Your task to perform on an android device: open sync settings in chrome Image 0: 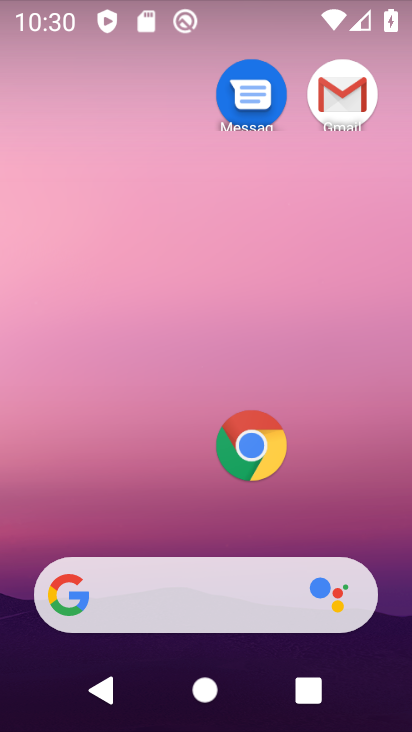
Step 0: click (245, 445)
Your task to perform on an android device: open sync settings in chrome Image 1: 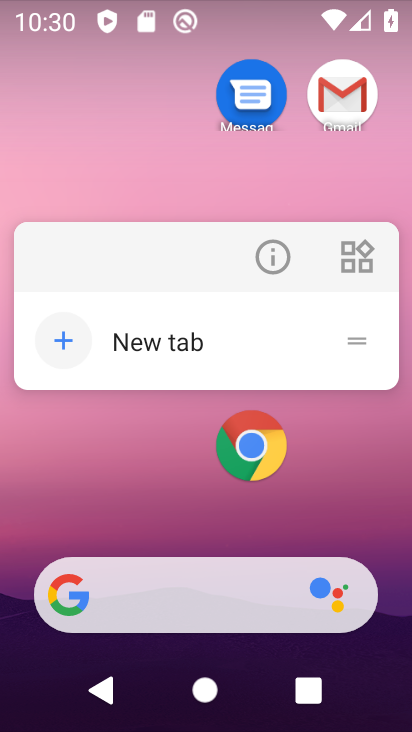
Step 1: click (255, 465)
Your task to perform on an android device: open sync settings in chrome Image 2: 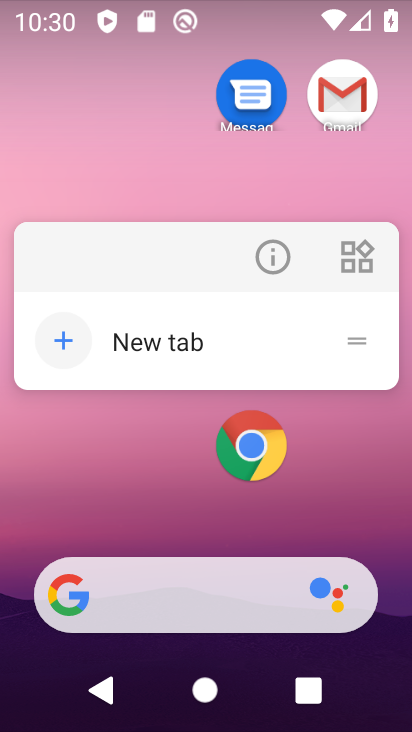
Step 2: click (263, 420)
Your task to perform on an android device: open sync settings in chrome Image 3: 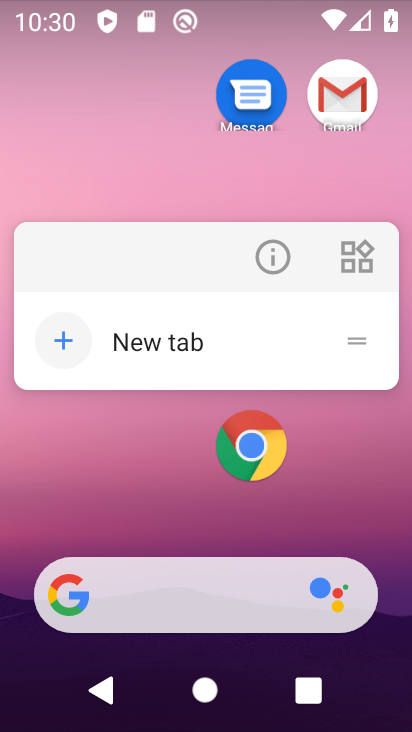
Step 3: click (260, 450)
Your task to perform on an android device: open sync settings in chrome Image 4: 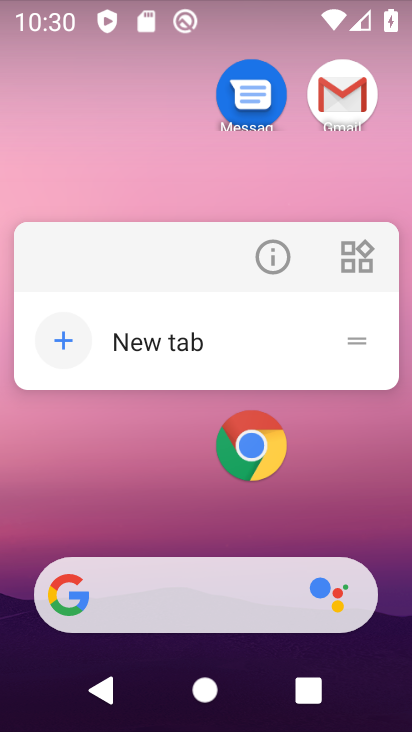
Step 4: click (242, 453)
Your task to perform on an android device: open sync settings in chrome Image 5: 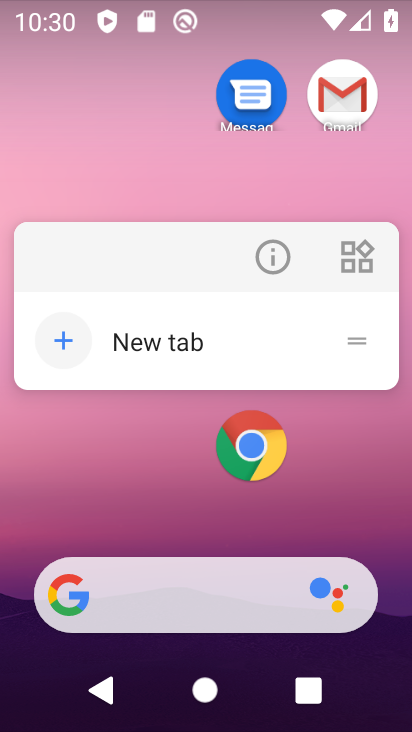
Step 5: click (242, 454)
Your task to perform on an android device: open sync settings in chrome Image 6: 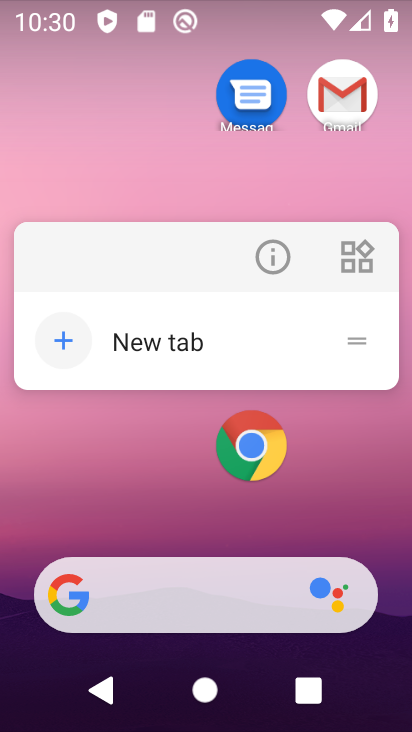
Step 6: click (260, 462)
Your task to perform on an android device: open sync settings in chrome Image 7: 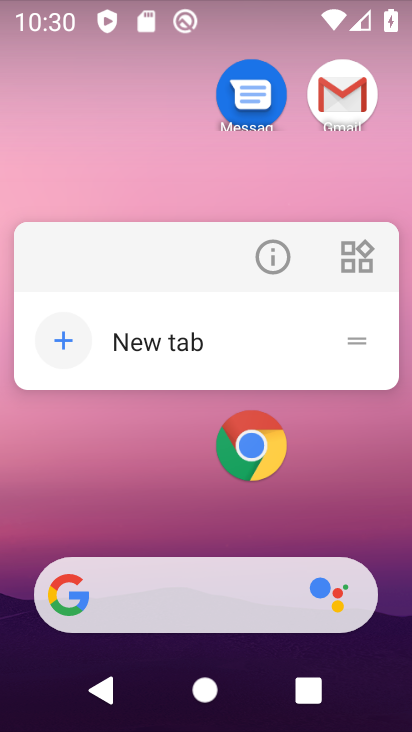
Step 7: click (290, 460)
Your task to perform on an android device: open sync settings in chrome Image 8: 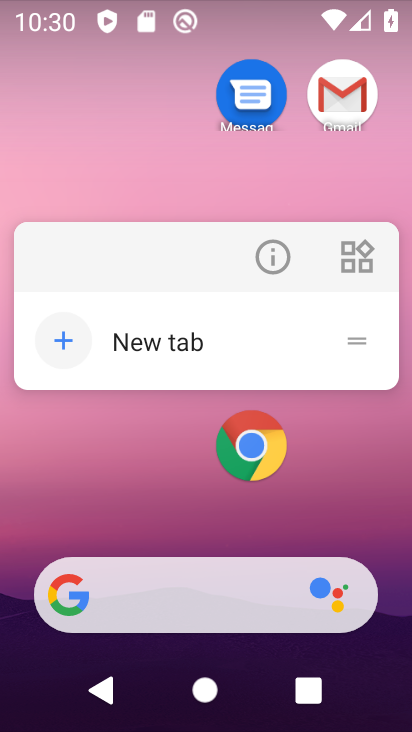
Step 8: click (269, 456)
Your task to perform on an android device: open sync settings in chrome Image 9: 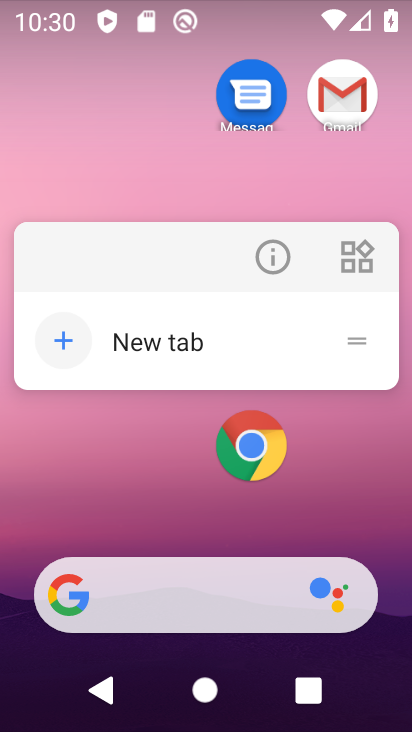
Step 9: click (247, 471)
Your task to perform on an android device: open sync settings in chrome Image 10: 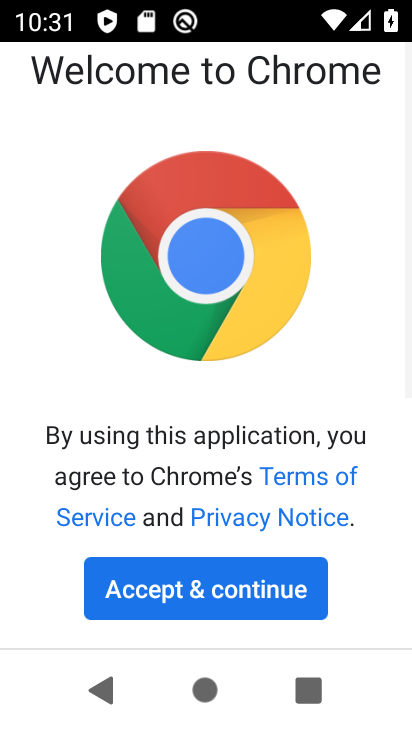
Step 10: click (227, 615)
Your task to perform on an android device: open sync settings in chrome Image 11: 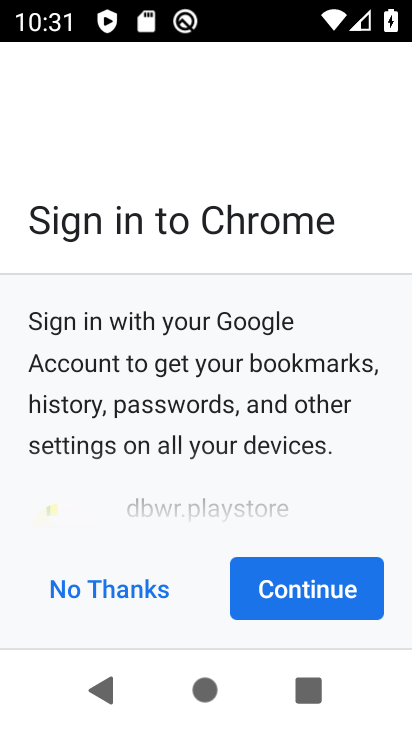
Step 11: click (351, 592)
Your task to perform on an android device: open sync settings in chrome Image 12: 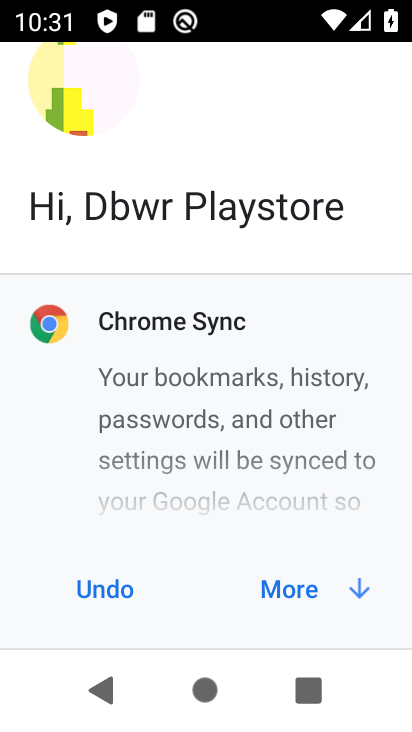
Step 12: click (310, 593)
Your task to perform on an android device: open sync settings in chrome Image 13: 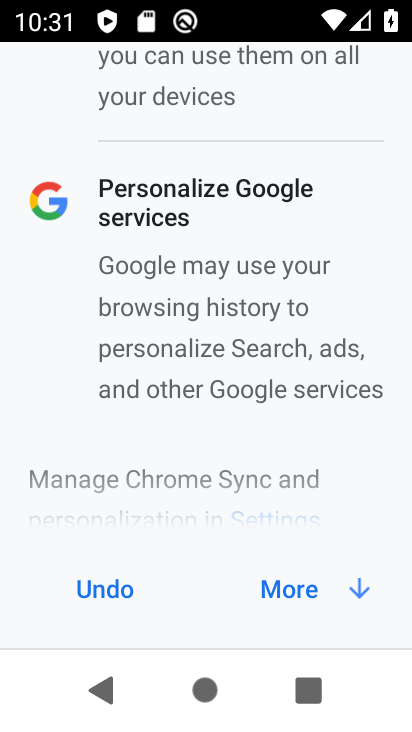
Step 13: click (316, 584)
Your task to perform on an android device: open sync settings in chrome Image 14: 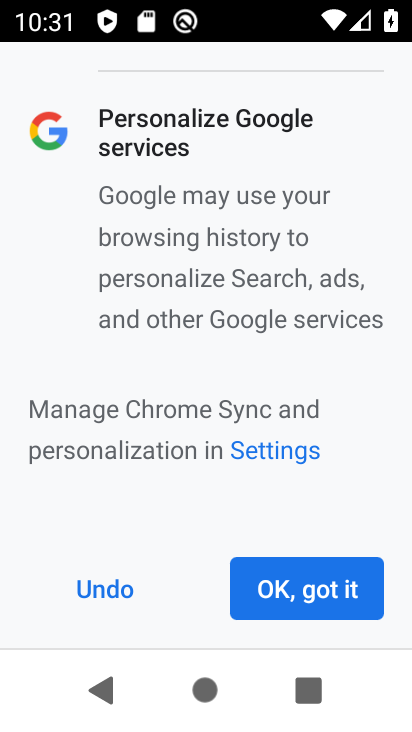
Step 14: click (360, 586)
Your task to perform on an android device: open sync settings in chrome Image 15: 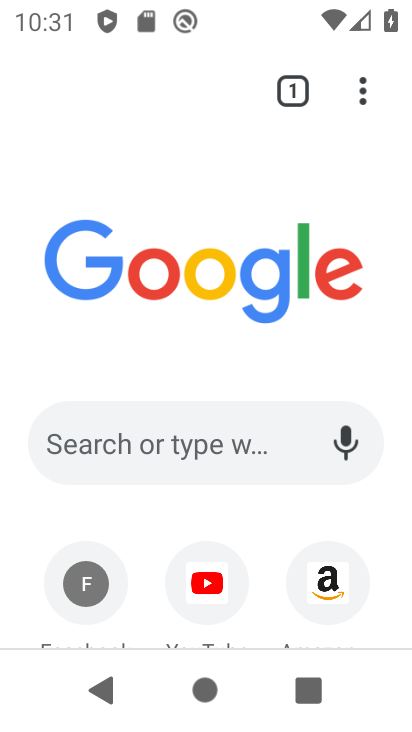
Step 15: click (378, 101)
Your task to perform on an android device: open sync settings in chrome Image 16: 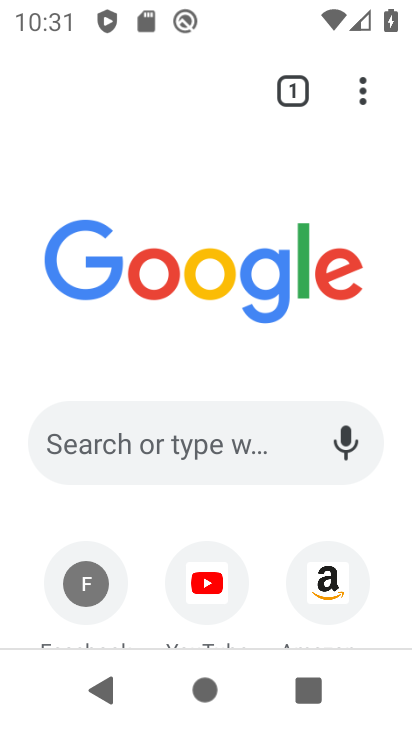
Step 16: drag from (373, 101) to (213, 469)
Your task to perform on an android device: open sync settings in chrome Image 17: 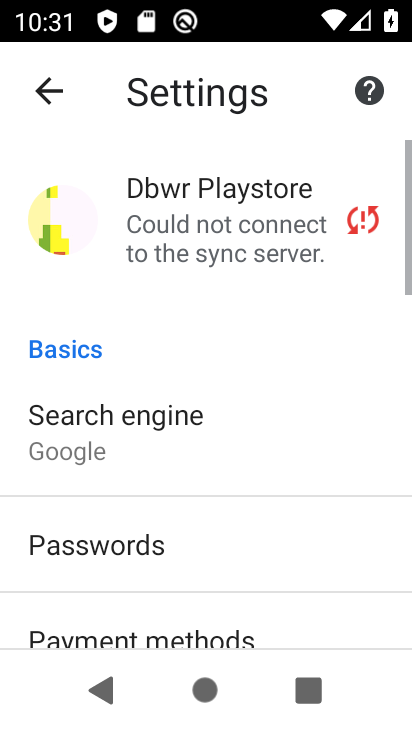
Step 17: click (181, 221)
Your task to perform on an android device: open sync settings in chrome Image 18: 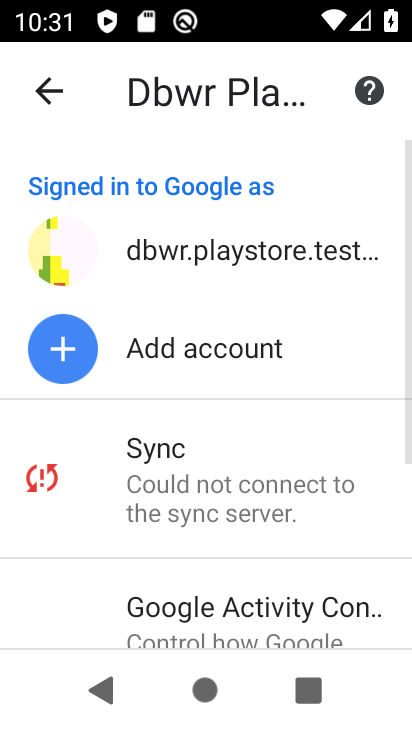
Step 18: click (187, 487)
Your task to perform on an android device: open sync settings in chrome Image 19: 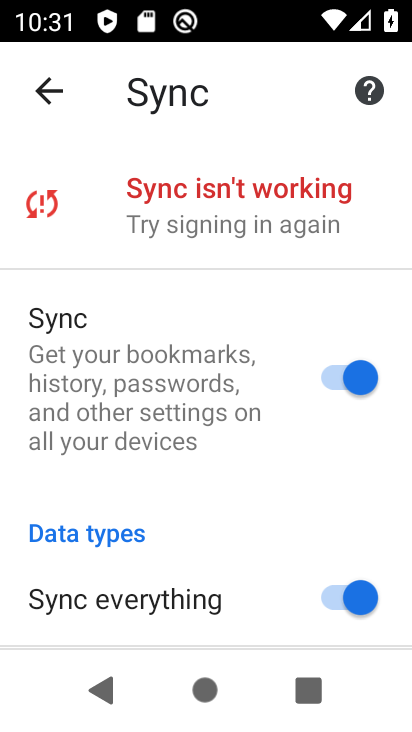
Step 19: task complete